Your task to perform on an android device: Open calendar and show me the third week of next month Image 0: 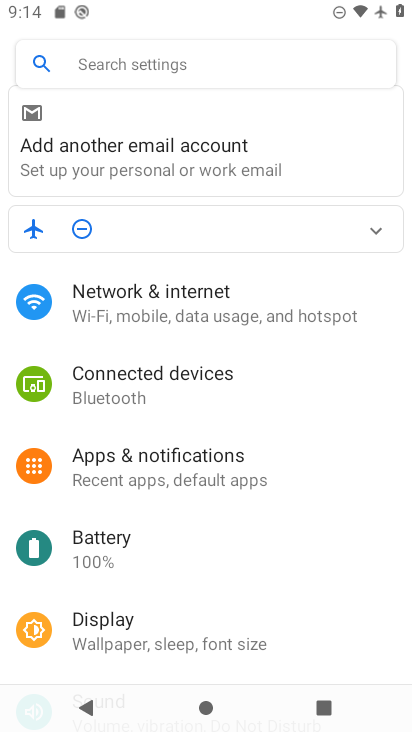
Step 0: press home button
Your task to perform on an android device: Open calendar and show me the third week of next month Image 1: 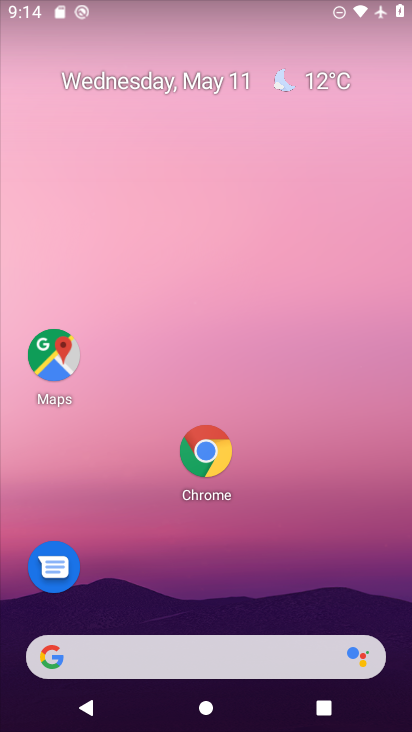
Step 1: click (223, 206)
Your task to perform on an android device: Open calendar and show me the third week of next month Image 2: 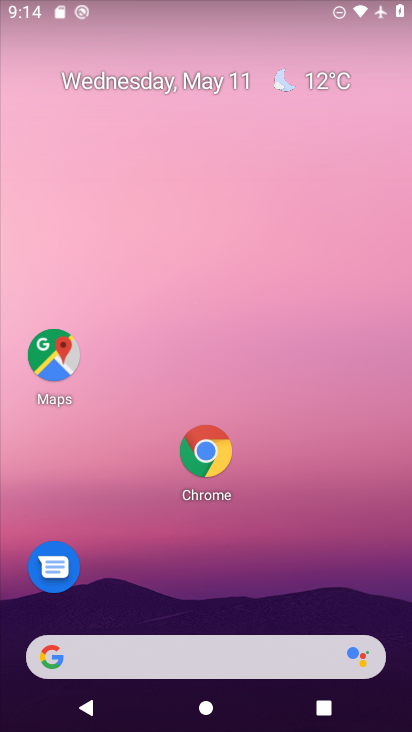
Step 2: drag from (151, 653) to (335, 71)
Your task to perform on an android device: Open calendar and show me the third week of next month Image 3: 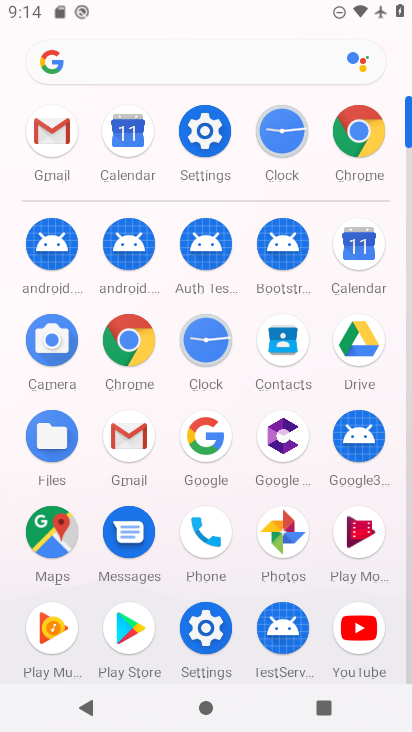
Step 3: click (352, 251)
Your task to perform on an android device: Open calendar and show me the third week of next month Image 4: 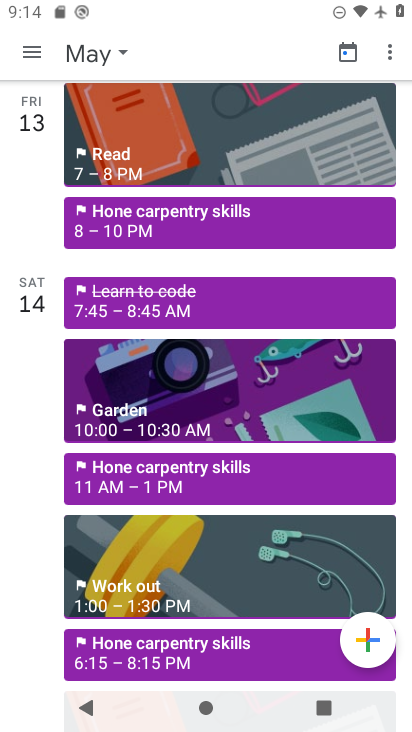
Step 4: click (92, 52)
Your task to perform on an android device: Open calendar and show me the third week of next month Image 5: 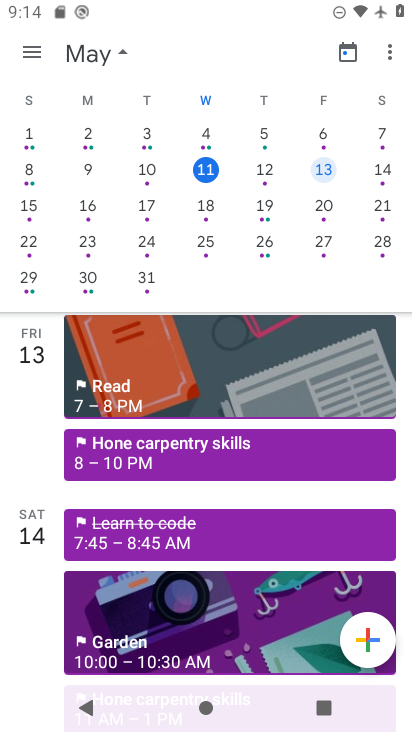
Step 5: drag from (342, 217) to (76, 185)
Your task to perform on an android device: Open calendar and show me the third week of next month Image 6: 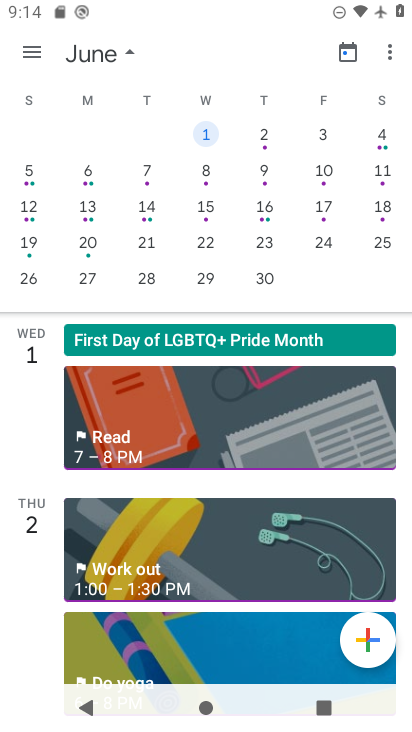
Step 6: click (34, 210)
Your task to perform on an android device: Open calendar and show me the third week of next month Image 7: 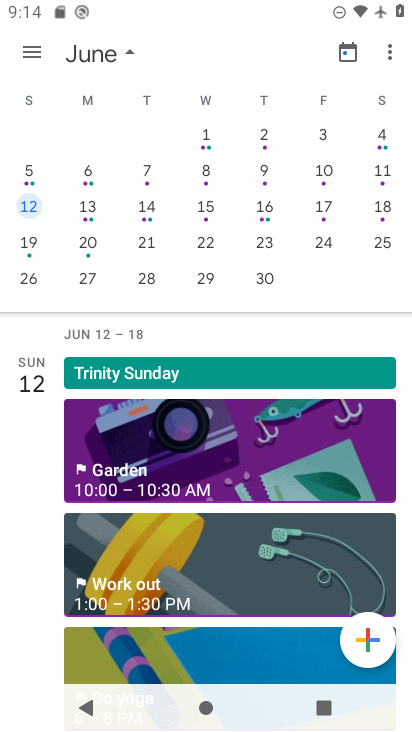
Step 7: click (30, 49)
Your task to perform on an android device: Open calendar and show me the third week of next month Image 8: 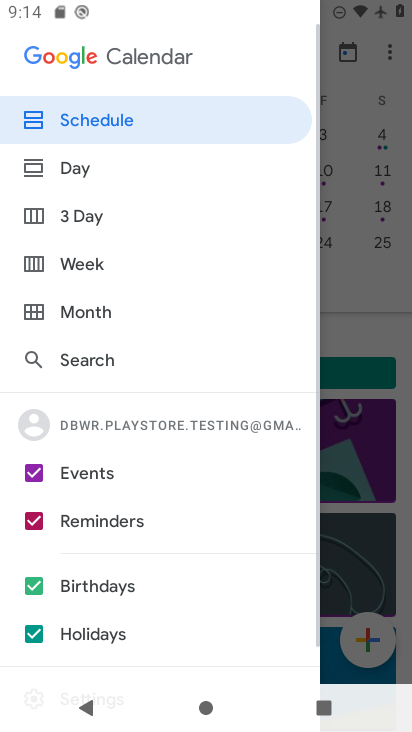
Step 8: click (102, 262)
Your task to perform on an android device: Open calendar and show me the third week of next month Image 9: 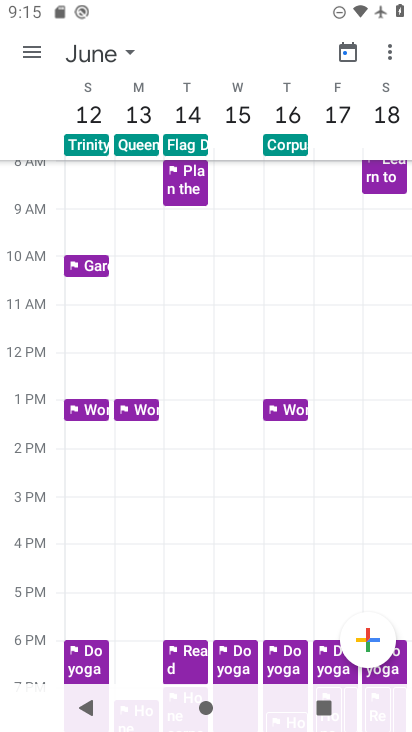
Step 9: task complete